Your task to perform on an android device: What's the weather like in Mexico City? Image 0: 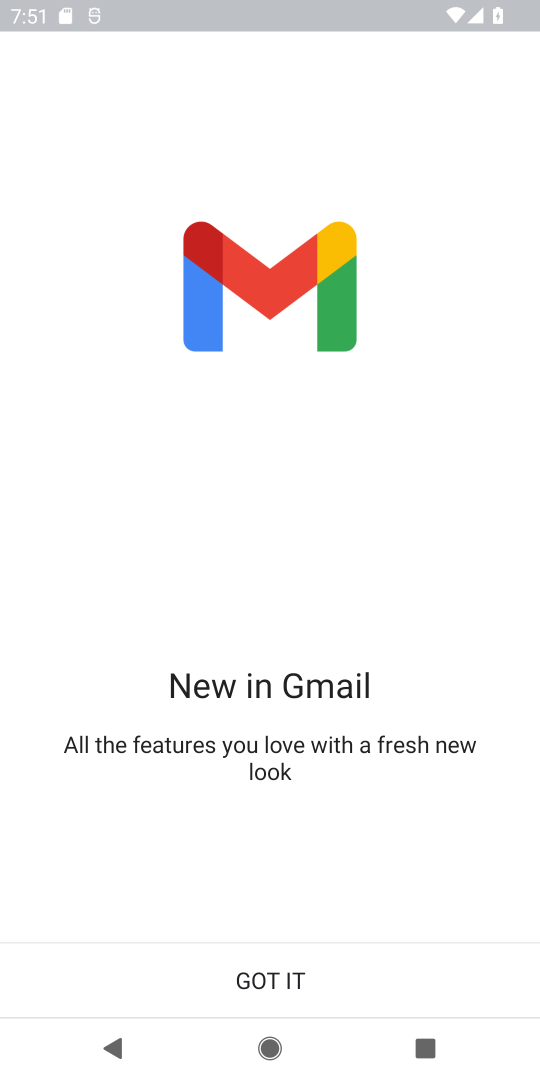
Step 0: press home button
Your task to perform on an android device: What's the weather like in Mexico City? Image 1: 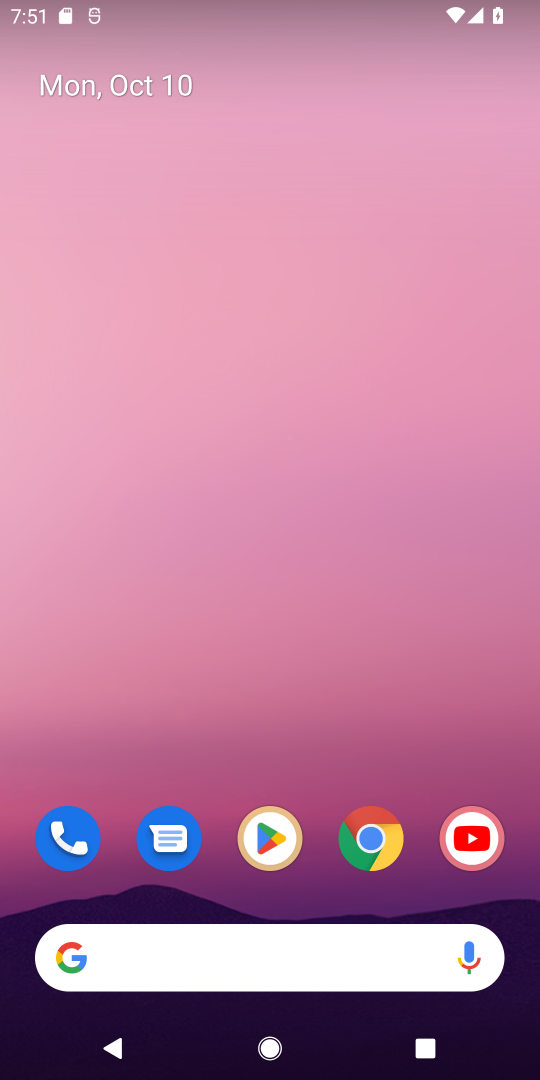
Step 1: click (368, 840)
Your task to perform on an android device: What's the weather like in Mexico City? Image 2: 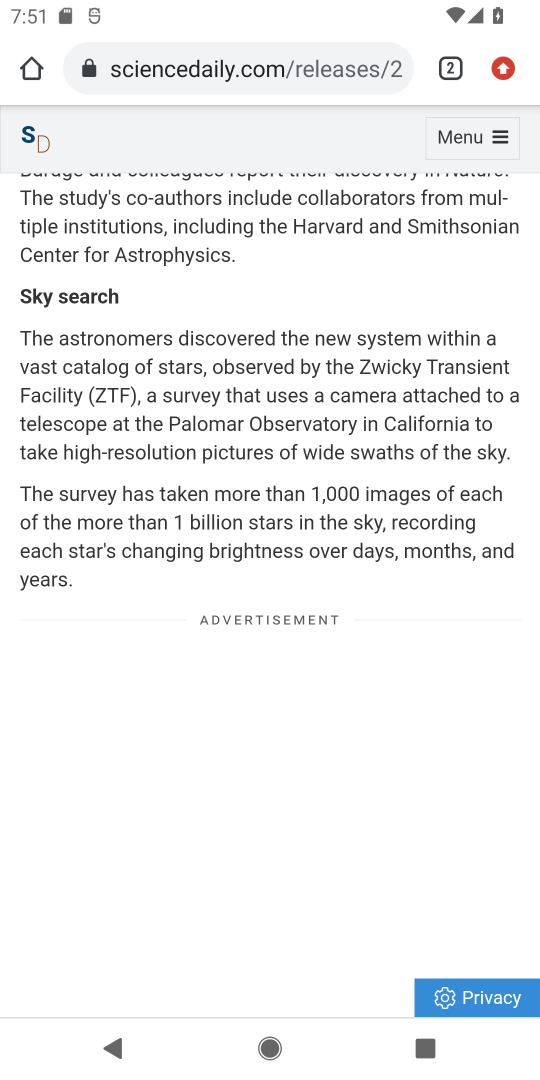
Step 2: click (269, 51)
Your task to perform on an android device: What's the weather like in Mexico City? Image 3: 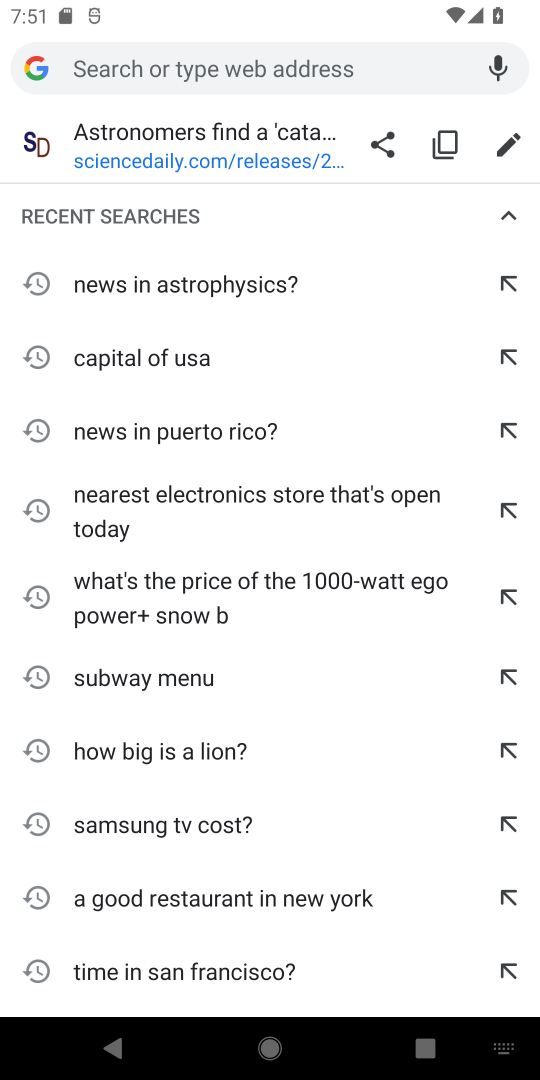
Step 3: type "weather like in Mexico City?"
Your task to perform on an android device: What's the weather like in Mexico City? Image 4: 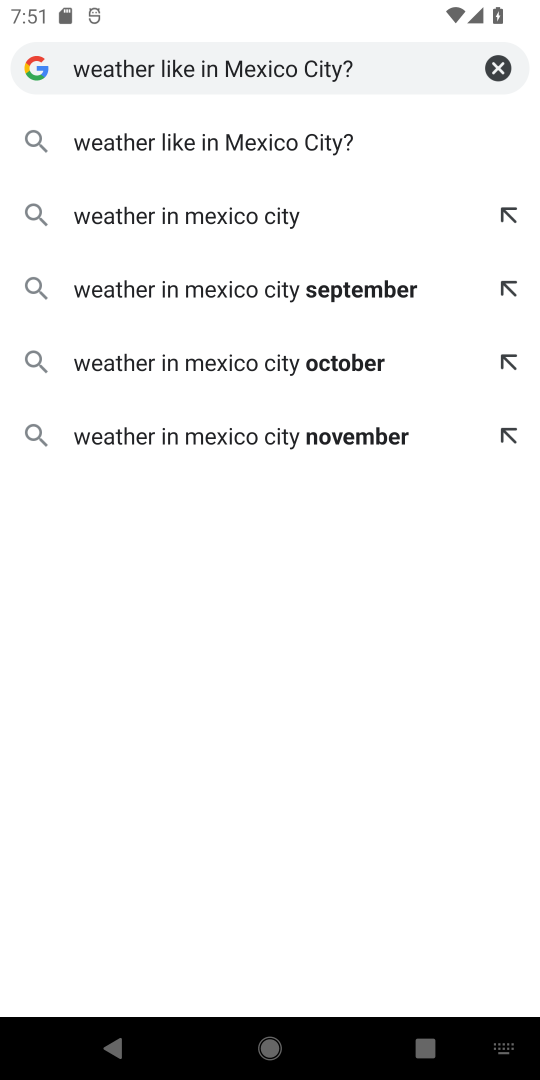
Step 4: click (154, 141)
Your task to perform on an android device: What's the weather like in Mexico City? Image 5: 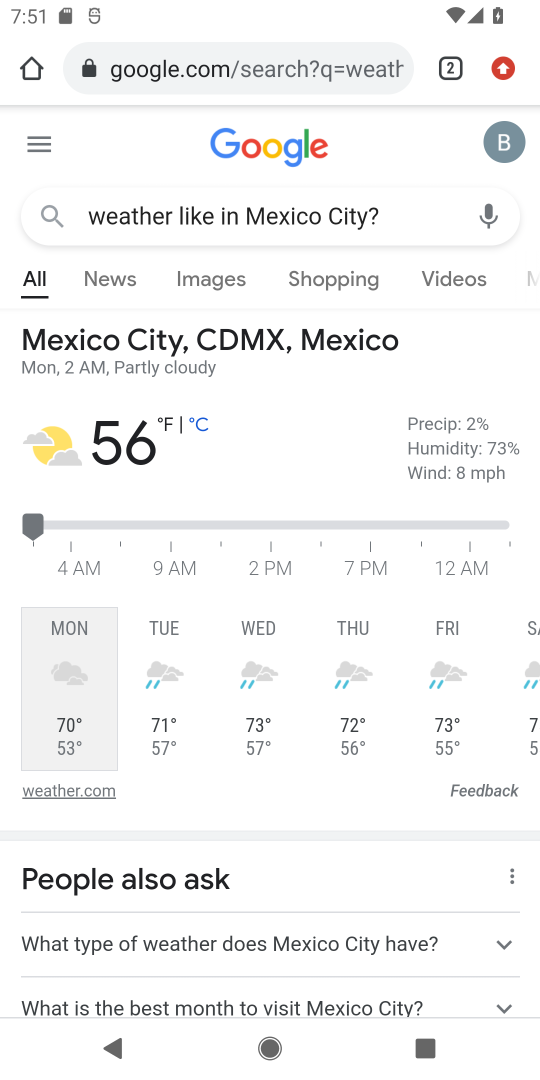
Step 5: task complete